Your task to perform on an android device: What is the news today? Image 0: 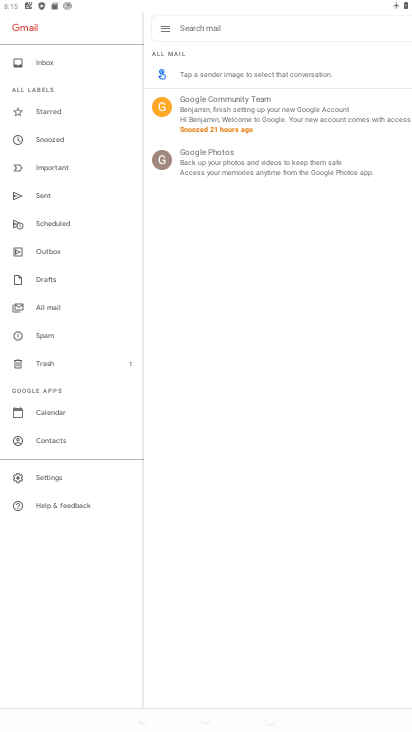
Step 0: drag from (270, 688) to (192, 219)
Your task to perform on an android device: What is the news today? Image 1: 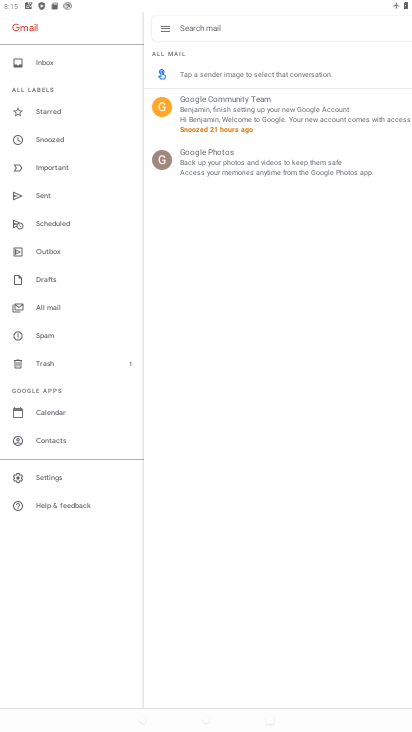
Step 1: press back button
Your task to perform on an android device: What is the news today? Image 2: 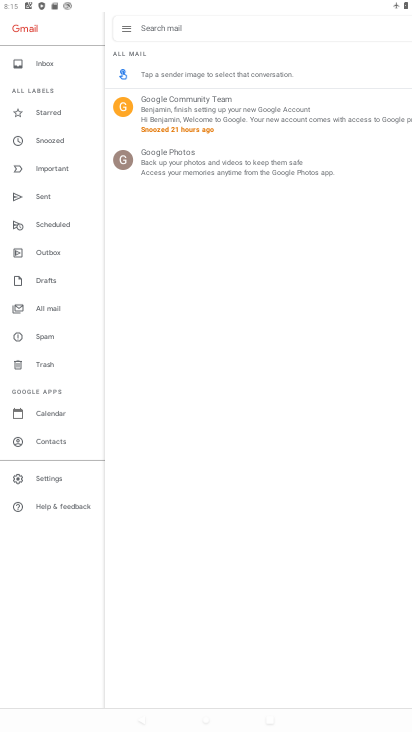
Step 2: press back button
Your task to perform on an android device: What is the news today? Image 3: 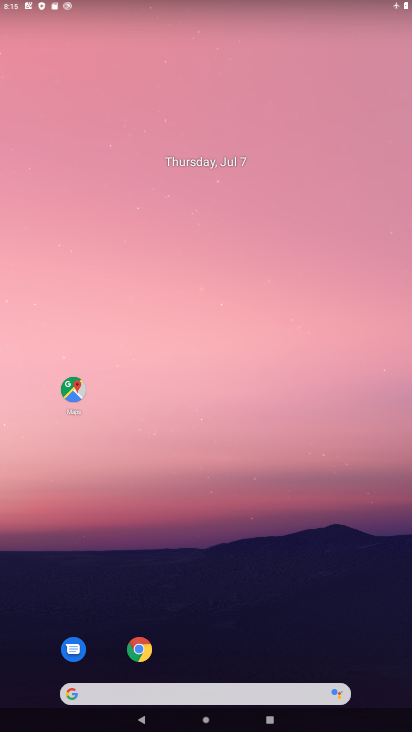
Step 3: drag from (251, 672) to (152, 192)
Your task to perform on an android device: What is the news today? Image 4: 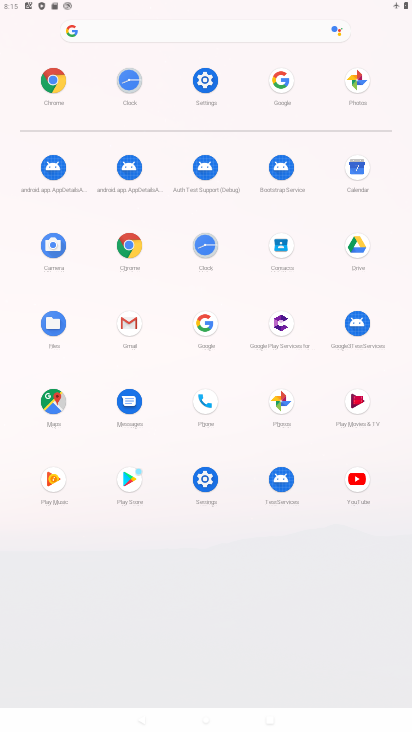
Step 4: click (53, 77)
Your task to perform on an android device: What is the news today? Image 5: 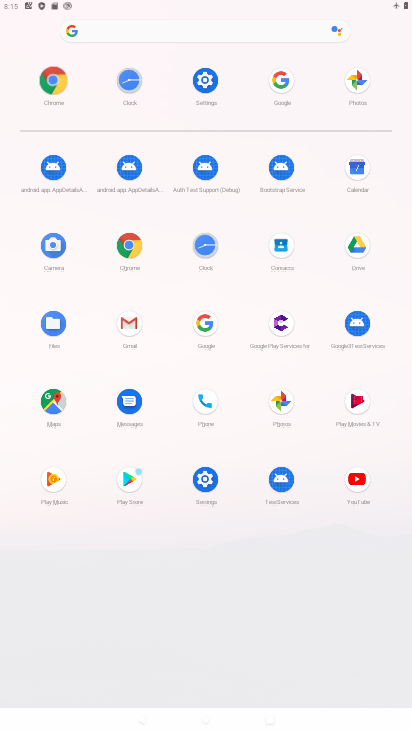
Step 5: click (53, 77)
Your task to perform on an android device: What is the news today? Image 6: 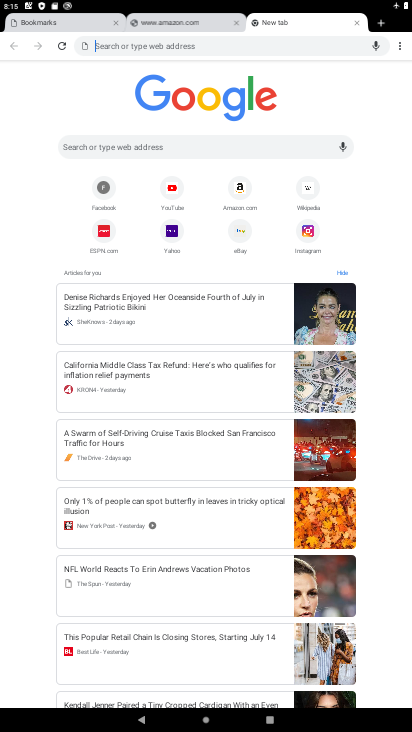
Step 6: task complete